Your task to perform on an android device: change the clock style Image 0: 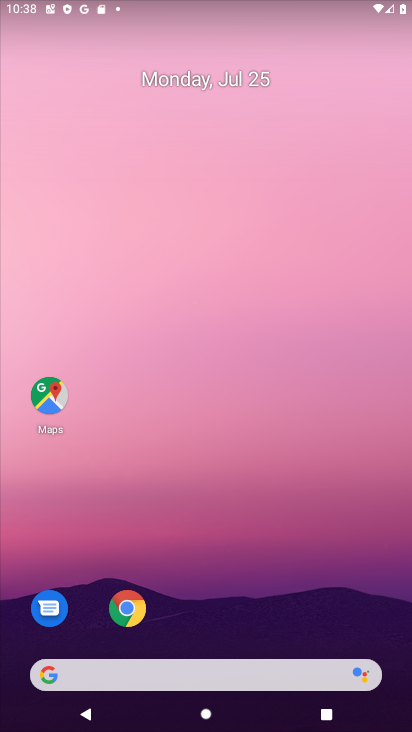
Step 0: drag from (247, 636) to (236, 37)
Your task to perform on an android device: change the clock style Image 1: 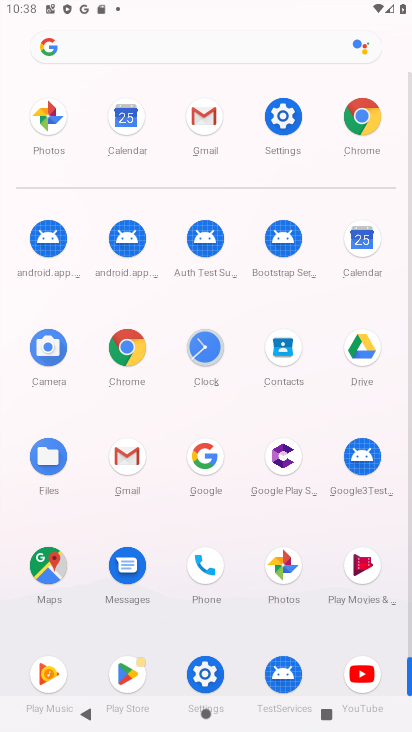
Step 1: click (196, 369)
Your task to perform on an android device: change the clock style Image 2: 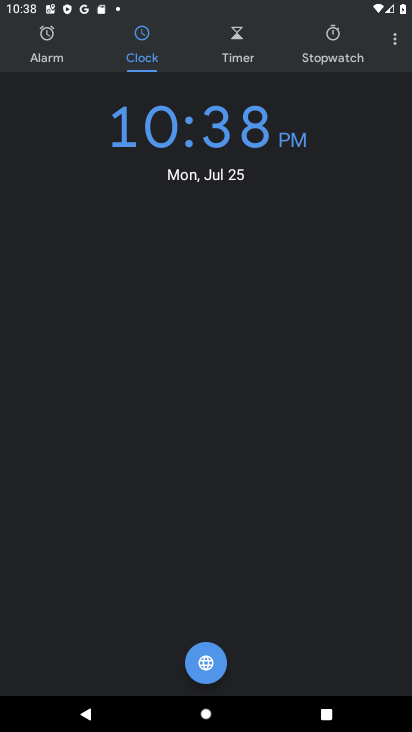
Step 2: click (395, 44)
Your task to perform on an android device: change the clock style Image 3: 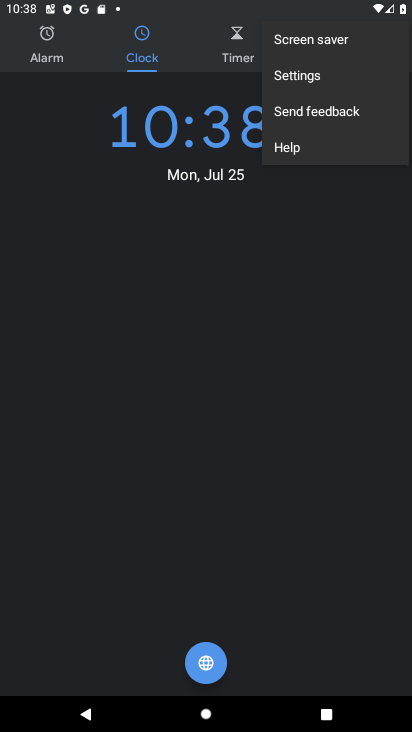
Step 3: click (303, 85)
Your task to perform on an android device: change the clock style Image 4: 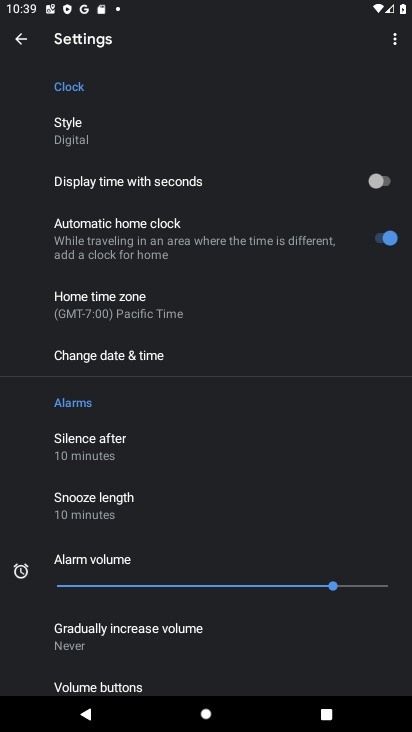
Step 4: click (175, 137)
Your task to perform on an android device: change the clock style Image 5: 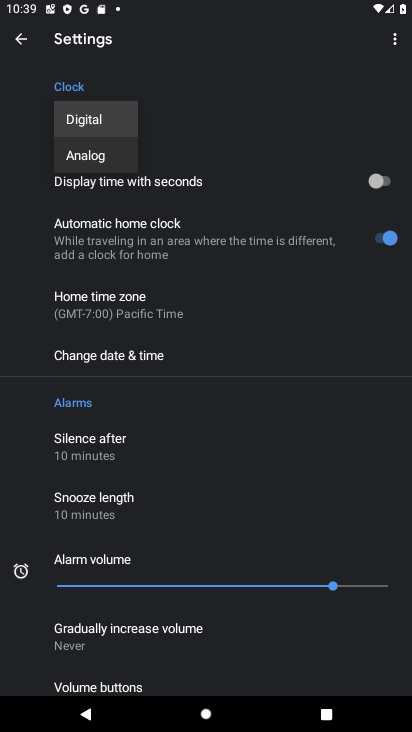
Step 5: click (80, 154)
Your task to perform on an android device: change the clock style Image 6: 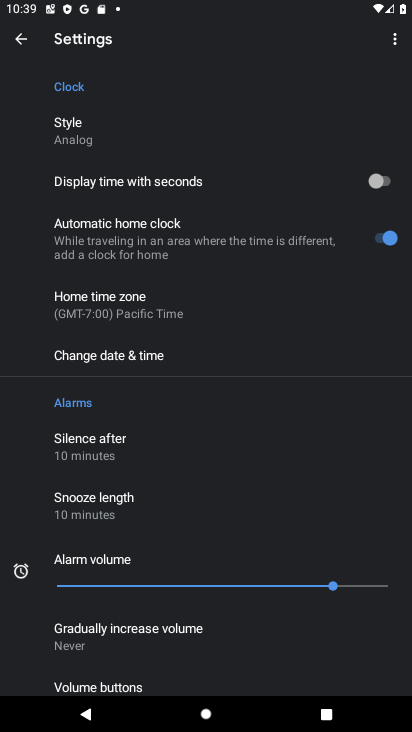
Step 6: task complete